Your task to perform on an android device: Toggle the flashlight Image 0: 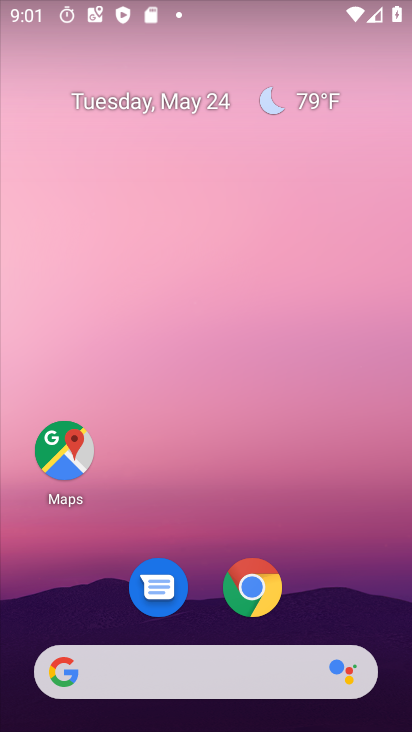
Step 0: drag from (324, 608) to (244, 190)
Your task to perform on an android device: Toggle the flashlight Image 1: 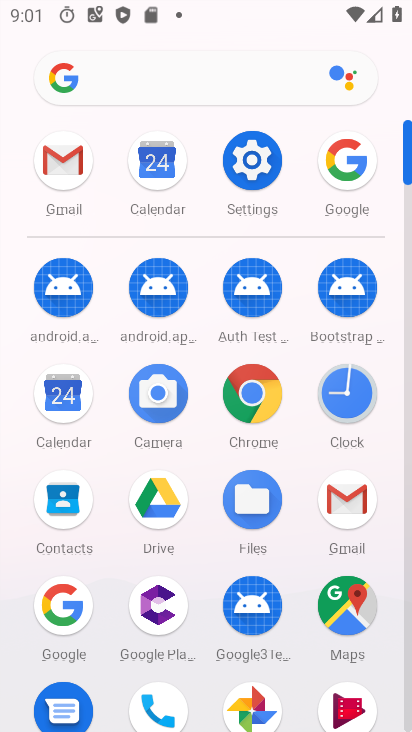
Step 1: click (253, 160)
Your task to perform on an android device: Toggle the flashlight Image 2: 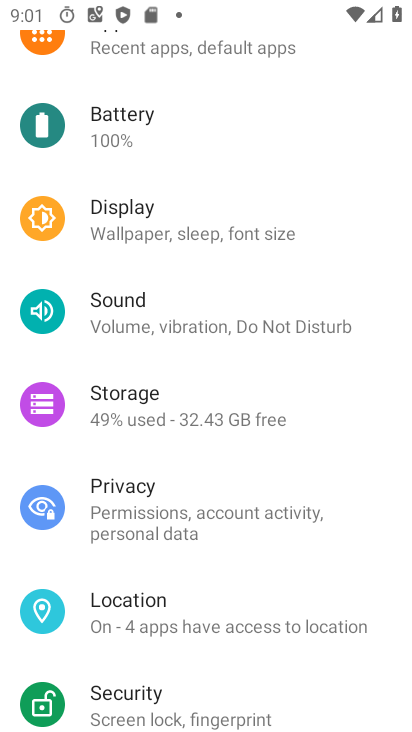
Step 2: drag from (189, 488) to (216, 406)
Your task to perform on an android device: Toggle the flashlight Image 3: 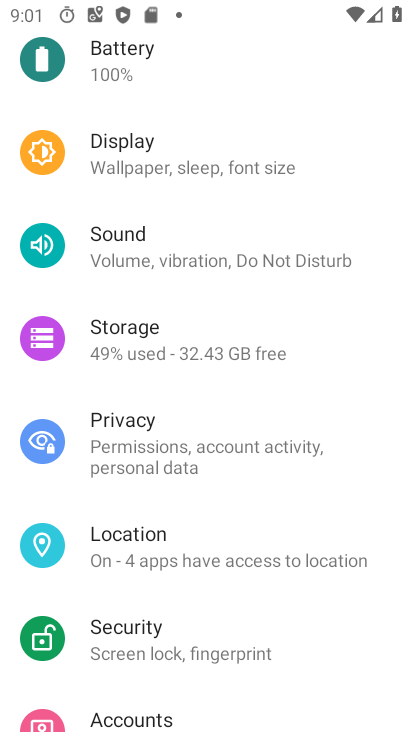
Step 3: drag from (242, 533) to (301, 402)
Your task to perform on an android device: Toggle the flashlight Image 4: 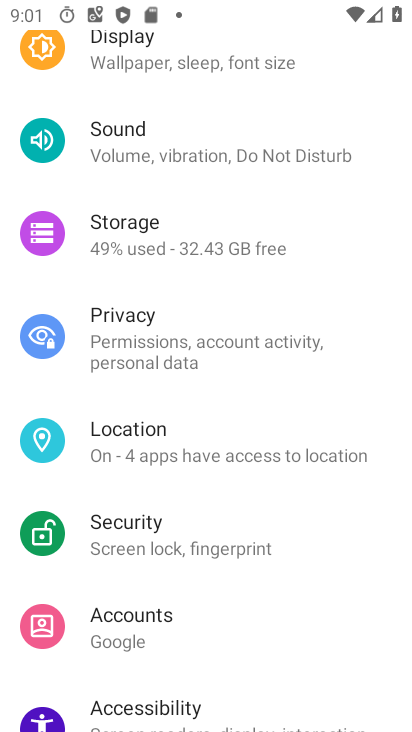
Step 4: drag from (206, 584) to (303, 421)
Your task to perform on an android device: Toggle the flashlight Image 5: 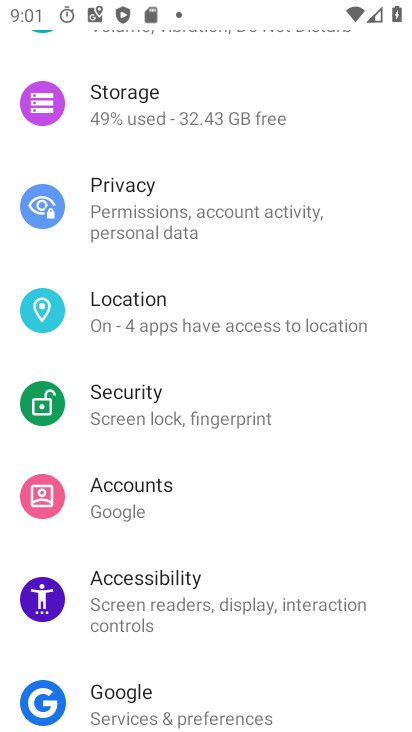
Step 5: drag from (221, 555) to (254, 452)
Your task to perform on an android device: Toggle the flashlight Image 6: 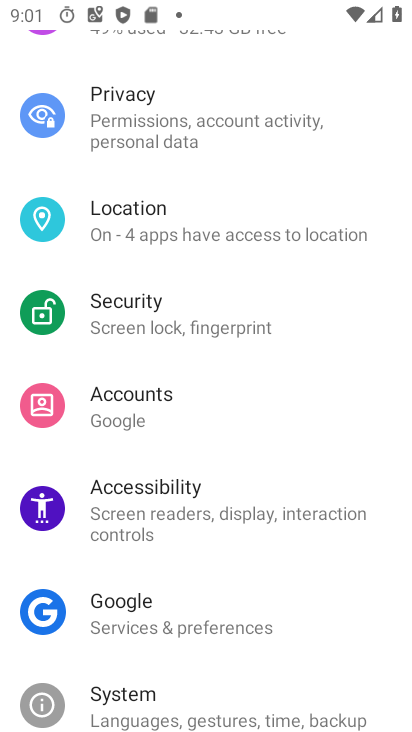
Step 6: drag from (200, 599) to (291, 443)
Your task to perform on an android device: Toggle the flashlight Image 7: 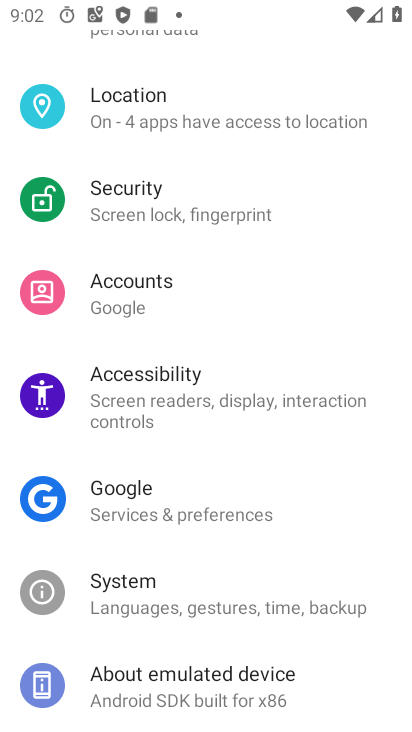
Step 7: drag from (249, 327) to (246, 462)
Your task to perform on an android device: Toggle the flashlight Image 8: 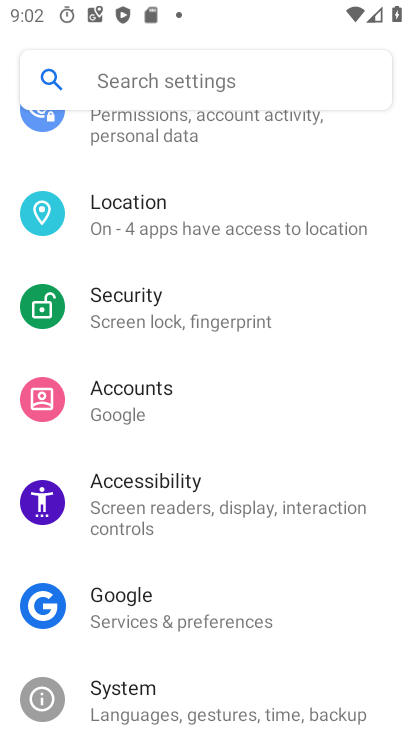
Step 8: drag from (205, 482) to (273, 361)
Your task to perform on an android device: Toggle the flashlight Image 9: 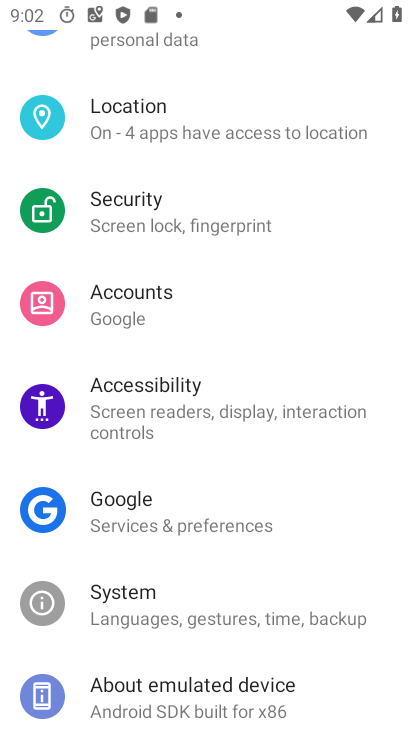
Step 9: click (245, 400)
Your task to perform on an android device: Toggle the flashlight Image 10: 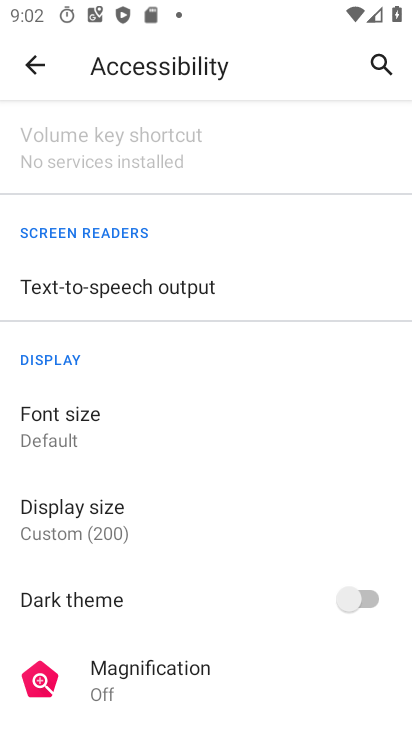
Step 10: drag from (163, 492) to (232, 382)
Your task to perform on an android device: Toggle the flashlight Image 11: 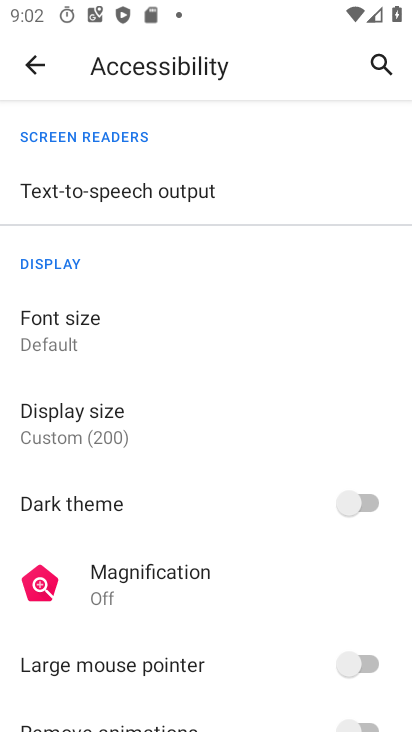
Step 11: drag from (145, 531) to (223, 414)
Your task to perform on an android device: Toggle the flashlight Image 12: 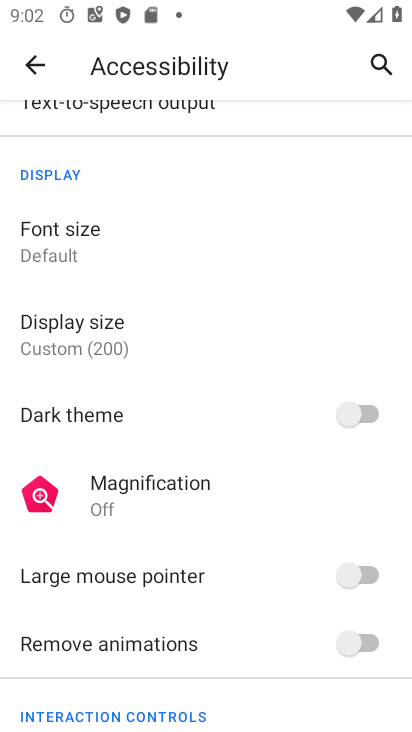
Step 12: drag from (151, 545) to (217, 433)
Your task to perform on an android device: Toggle the flashlight Image 13: 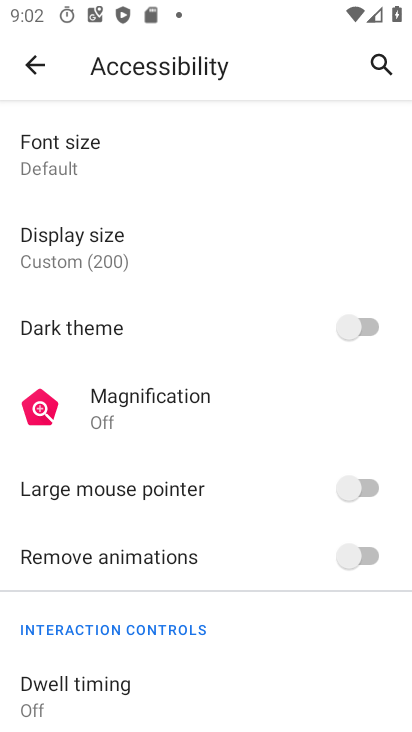
Step 13: drag from (165, 504) to (217, 442)
Your task to perform on an android device: Toggle the flashlight Image 14: 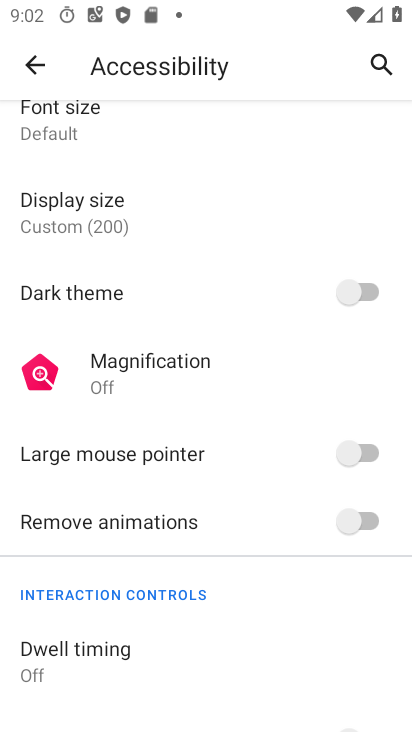
Step 14: drag from (139, 564) to (210, 450)
Your task to perform on an android device: Toggle the flashlight Image 15: 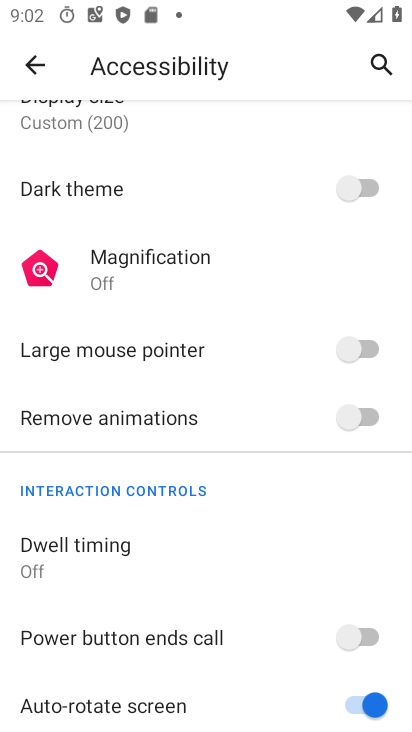
Step 15: drag from (130, 566) to (191, 480)
Your task to perform on an android device: Toggle the flashlight Image 16: 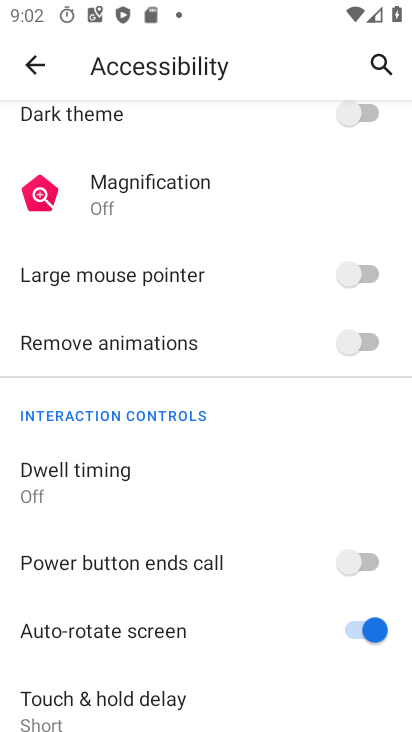
Step 16: drag from (127, 542) to (186, 464)
Your task to perform on an android device: Toggle the flashlight Image 17: 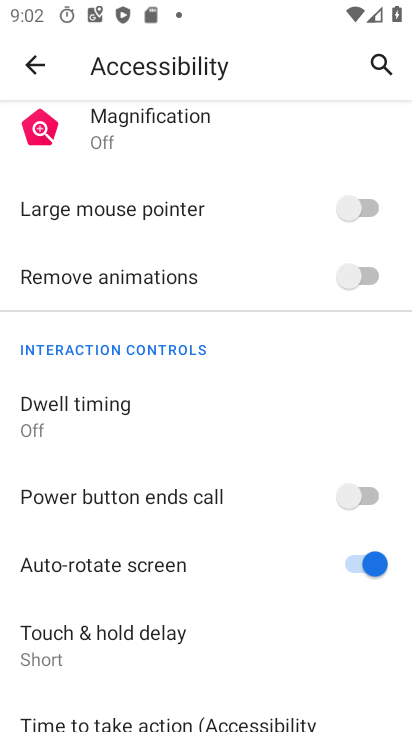
Step 17: drag from (128, 537) to (171, 466)
Your task to perform on an android device: Toggle the flashlight Image 18: 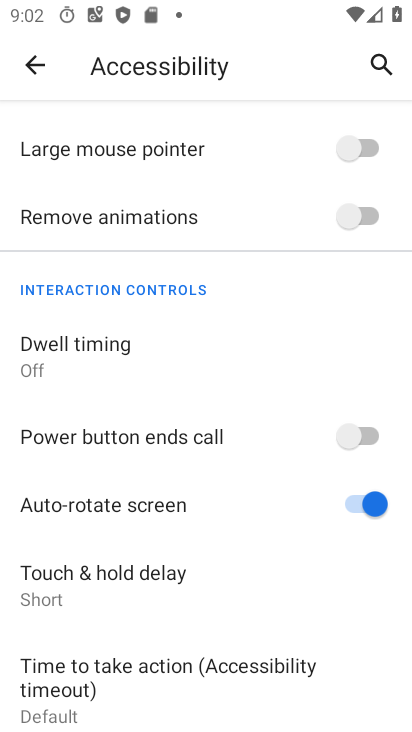
Step 18: drag from (88, 609) to (125, 527)
Your task to perform on an android device: Toggle the flashlight Image 19: 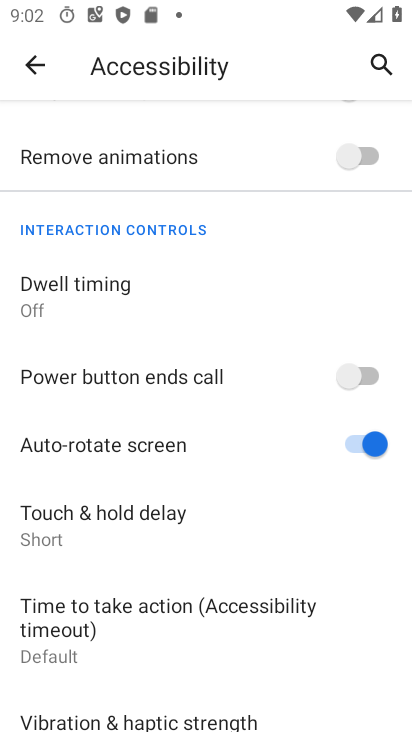
Step 19: drag from (160, 481) to (189, 412)
Your task to perform on an android device: Toggle the flashlight Image 20: 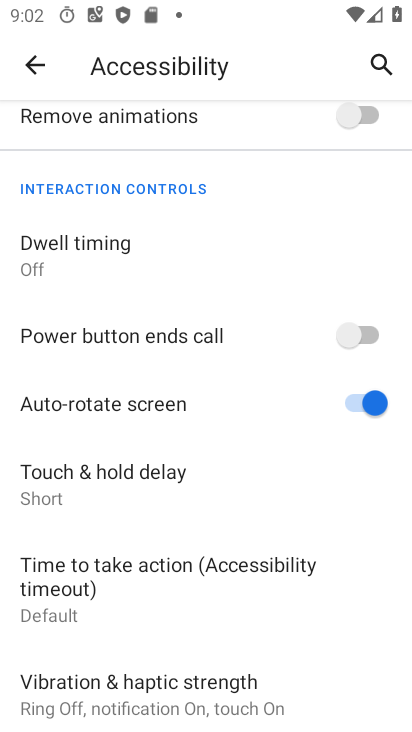
Step 20: drag from (119, 502) to (159, 388)
Your task to perform on an android device: Toggle the flashlight Image 21: 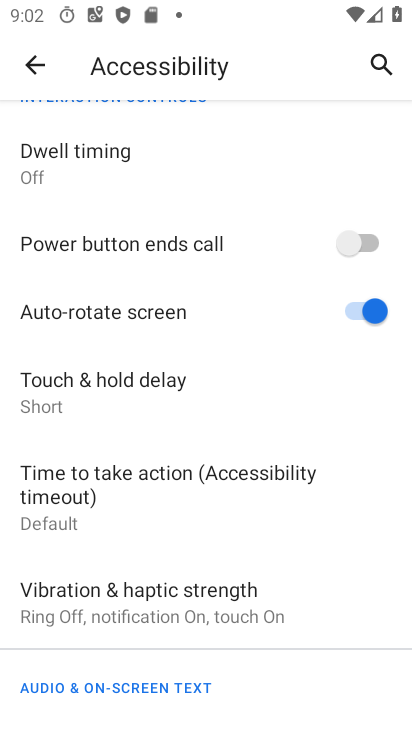
Step 21: drag from (154, 542) to (200, 440)
Your task to perform on an android device: Toggle the flashlight Image 22: 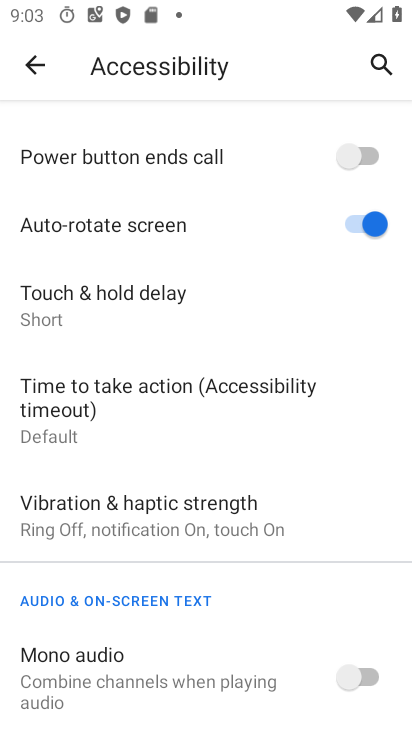
Step 22: drag from (172, 553) to (203, 452)
Your task to perform on an android device: Toggle the flashlight Image 23: 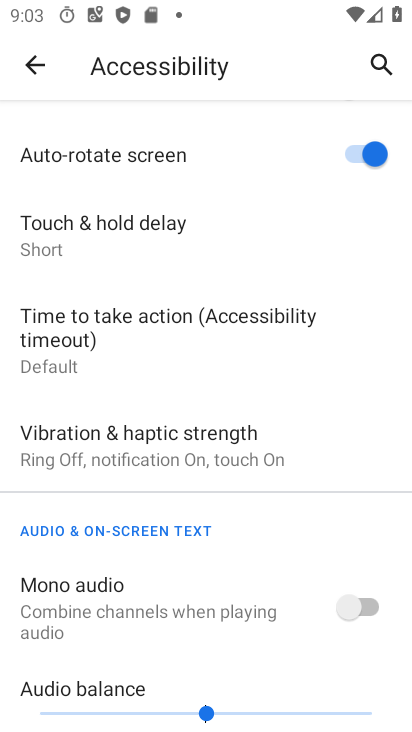
Step 23: press back button
Your task to perform on an android device: Toggle the flashlight Image 24: 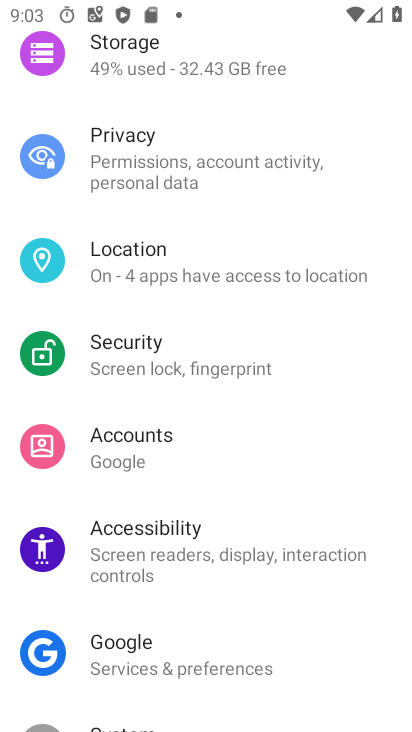
Step 24: drag from (224, 221) to (199, 381)
Your task to perform on an android device: Toggle the flashlight Image 25: 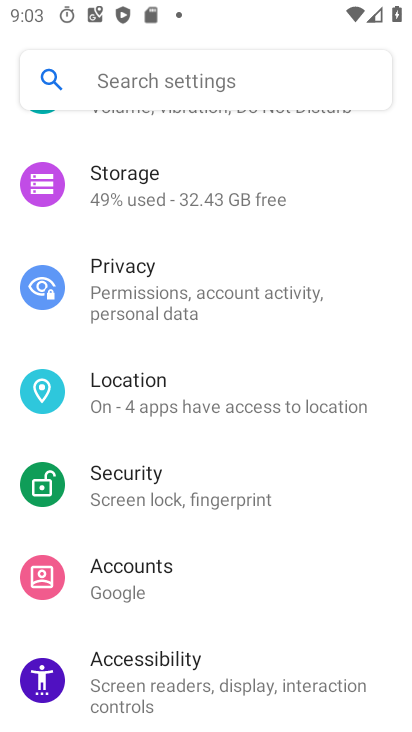
Step 25: drag from (226, 261) to (197, 411)
Your task to perform on an android device: Toggle the flashlight Image 26: 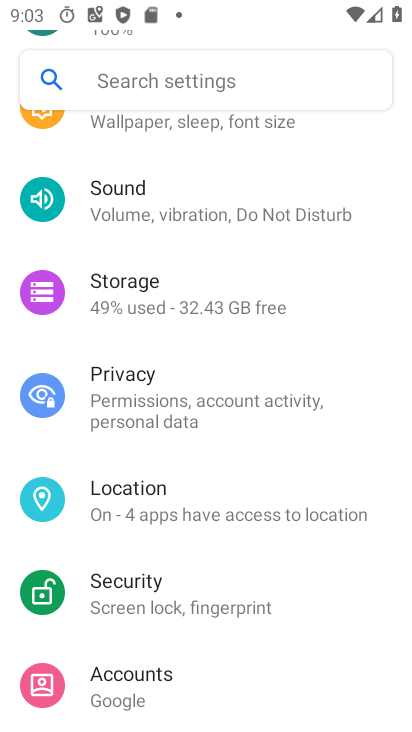
Step 26: drag from (239, 275) to (252, 412)
Your task to perform on an android device: Toggle the flashlight Image 27: 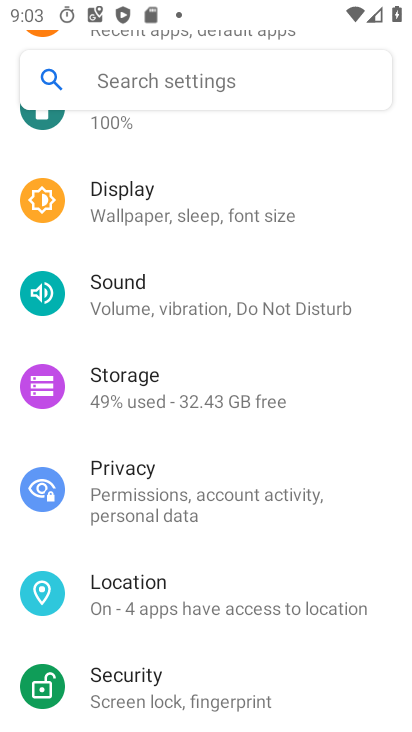
Step 27: click (229, 226)
Your task to perform on an android device: Toggle the flashlight Image 28: 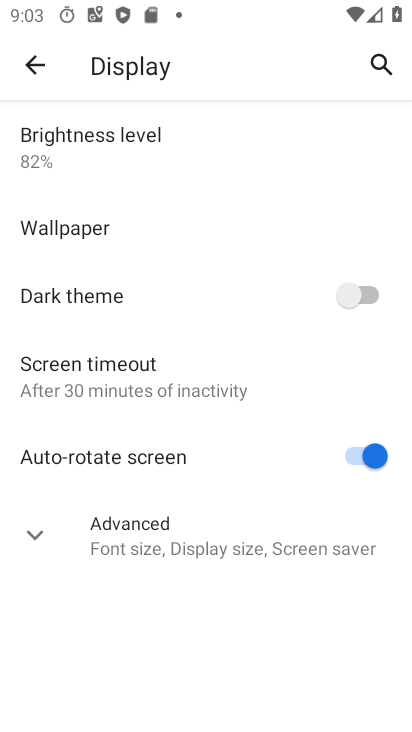
Step 28: task complete